Your task to perform on an android device: Open Google Maps Image 0: 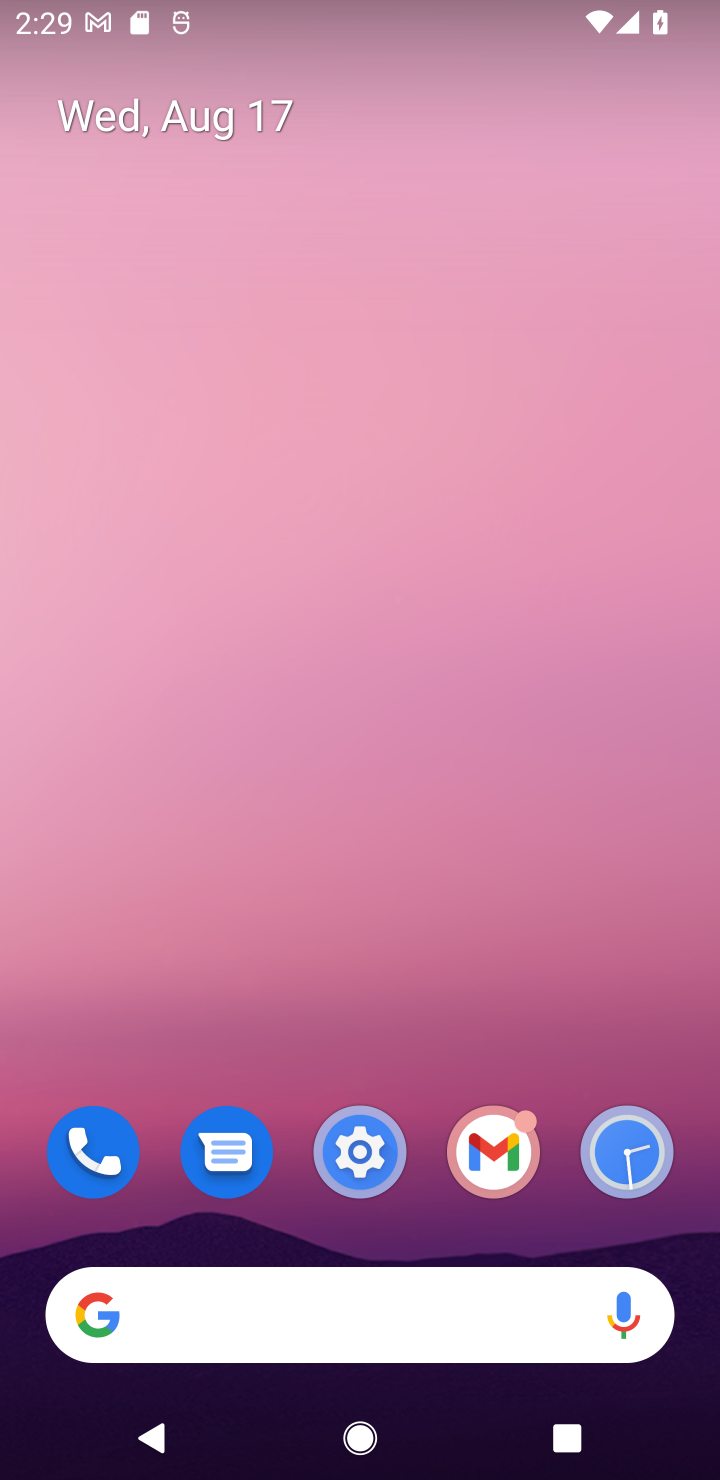
Step 0: drag from (609, 1238) to (392, 21)
Your task to perform on an android device: Open Google Maps Image 1: 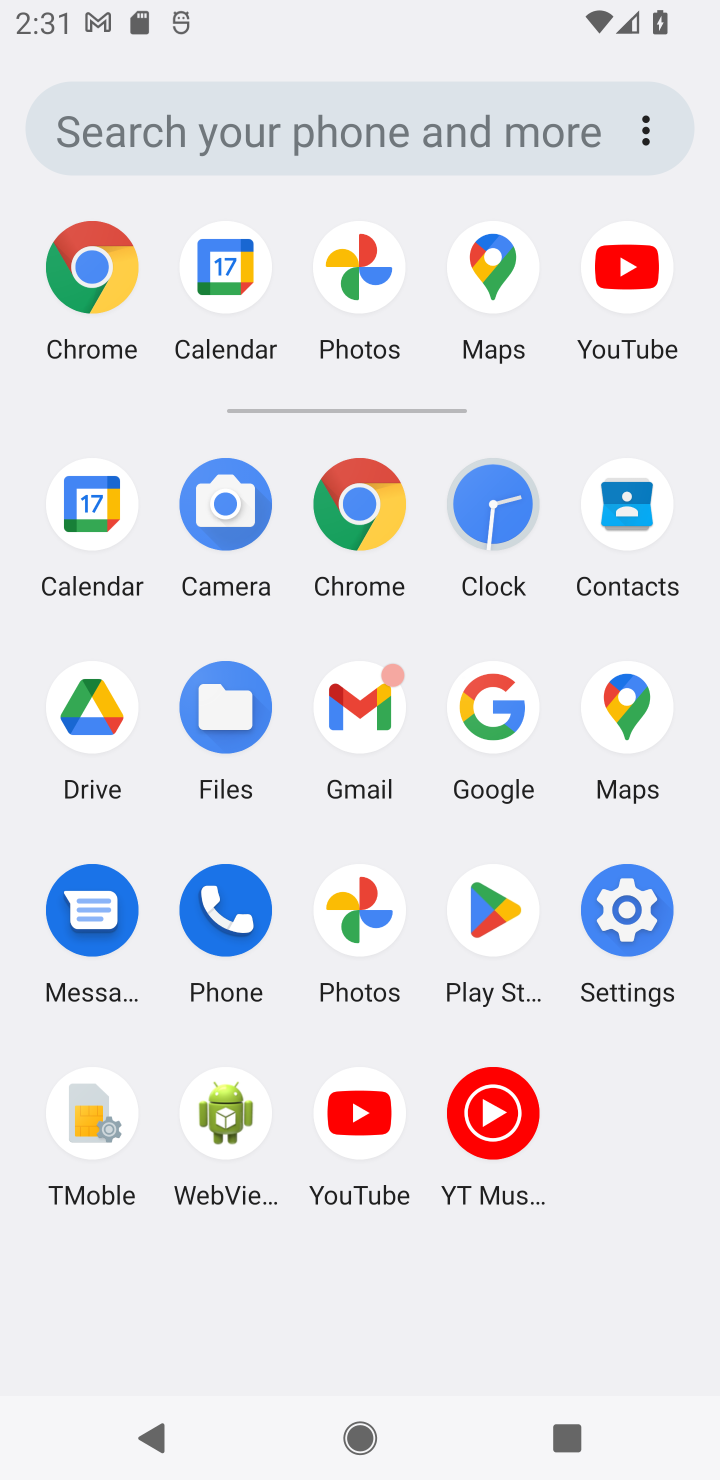
Step 1: click (634, 698)
Your task to perform on an android device: Open Google Maps Image 2: 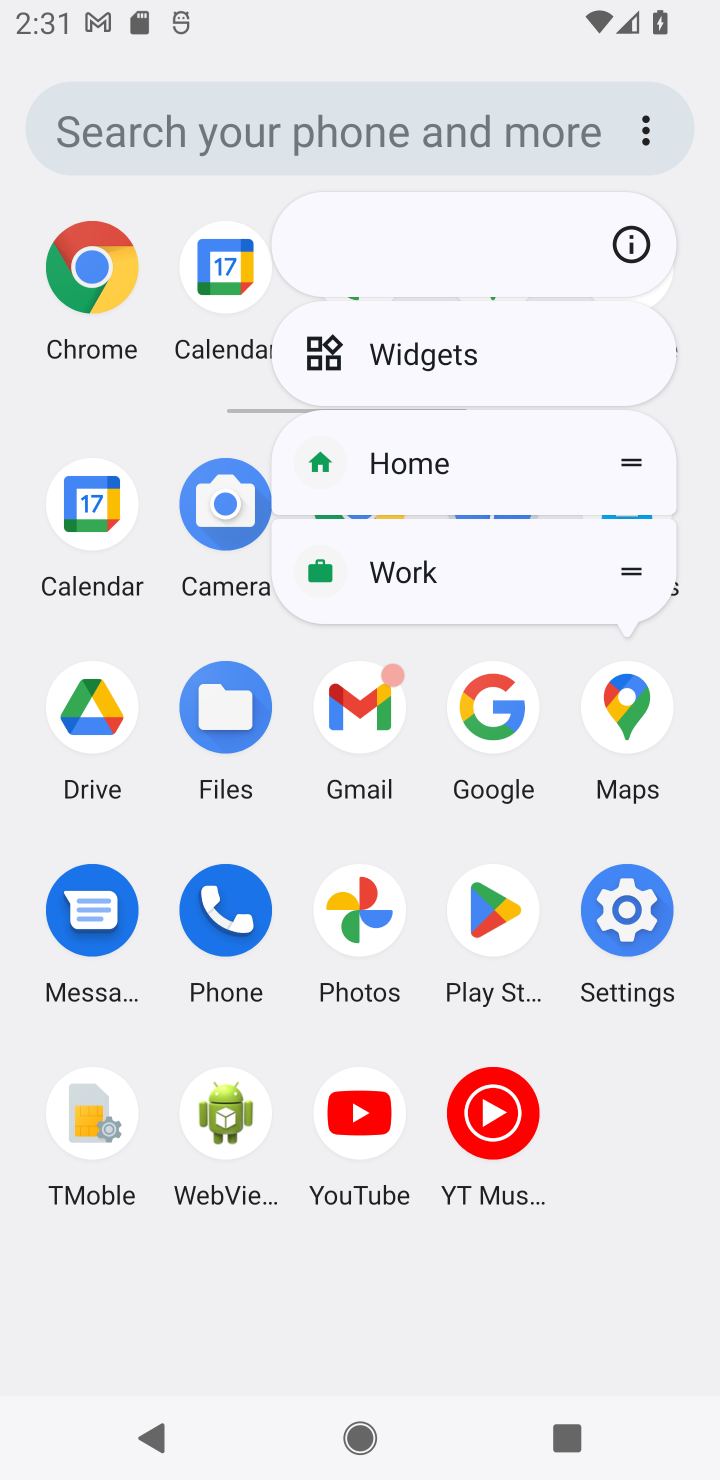
Step 2: click (640, 698)
Your task to perform on an android device: Open Google Maps Image 3: 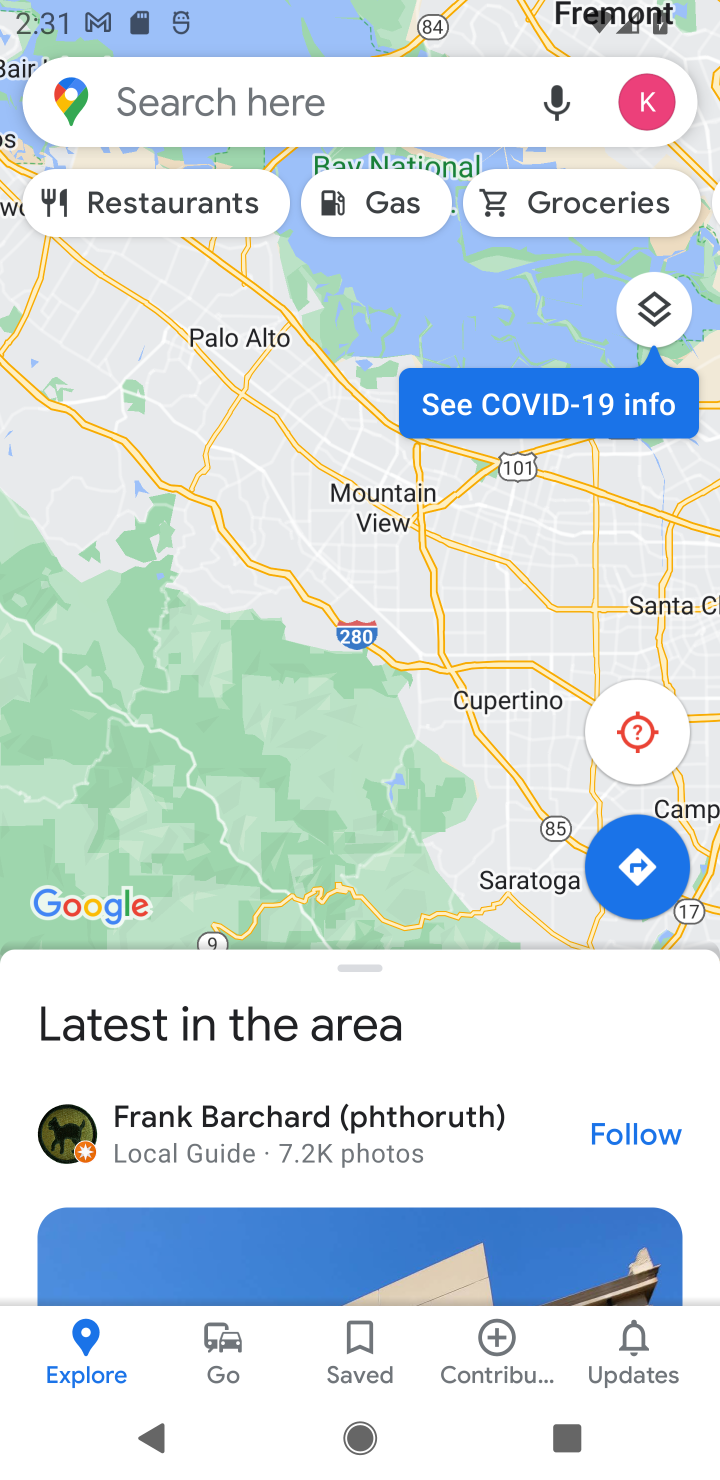
Step 3: task complete